Your task to perform on an android device: check battery use Image 0: 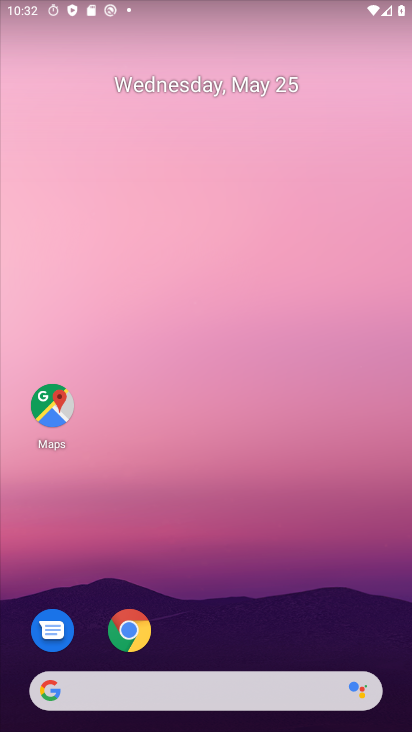
Step 0: drag from (384, 470) to (402, 144)
Your task to perform on an android device: check battery use Image 1: 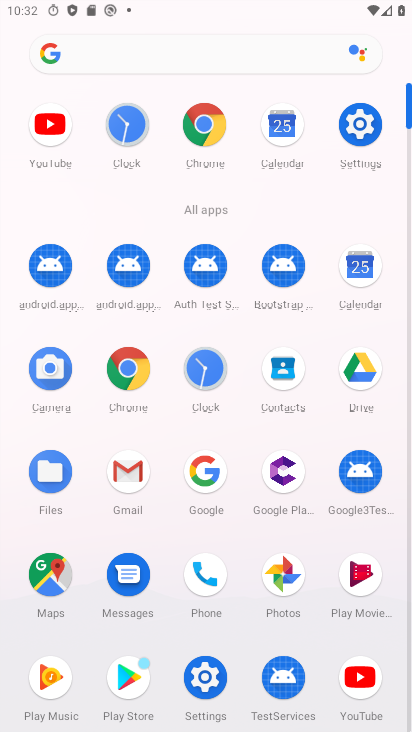
Step 1: click (355, 127)
Your task to perform on an android device: check battery use Image 2: 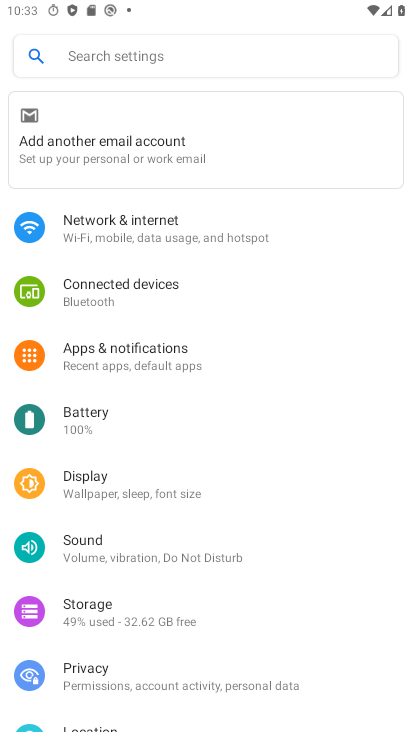
Step 2: click (81, 404)
Your task to perform on an android device: check battery use Image 3: 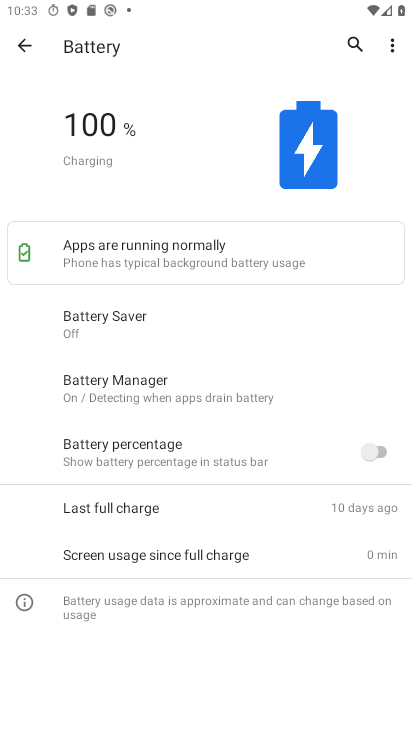
Step 3: click (389, 43)
Your task to perform on an android device: check battery use Image 4: 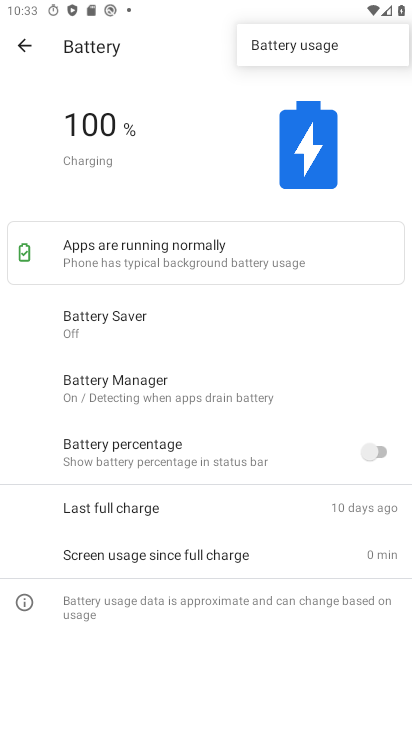
Step 4: click (247, 46)
Your task to perform on an android device: check battery use Image 5: 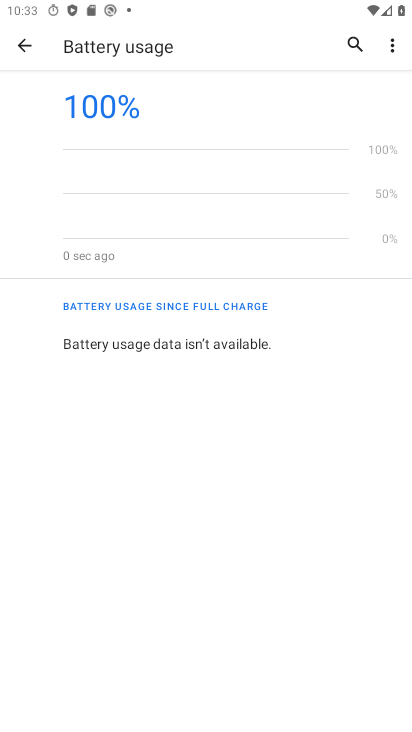
Step 5: task complete